Your task to perform on an android device: turn off notifications in google photos Image 0: 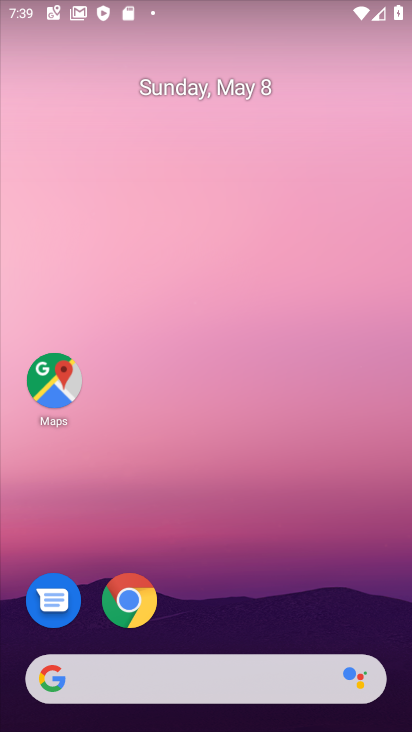
Step 0: drag from (280, 627) to (255, 283)
Your task to perform on an android device: turn off notifications in google photos Image 1: 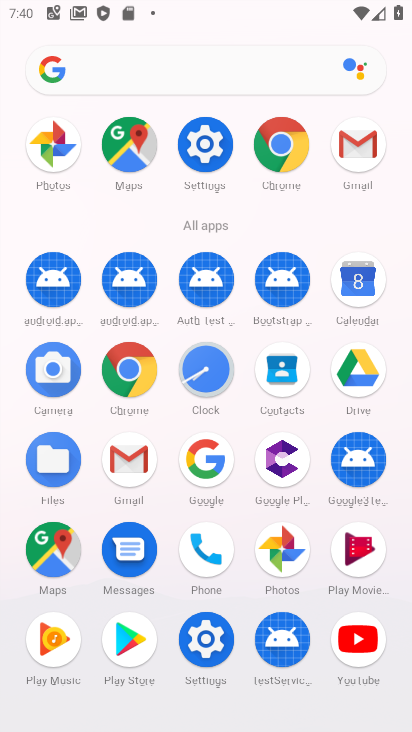
Step 1: click (264, 544)
Your task to perform on an android device: turn off notifications in google photos Image 2: 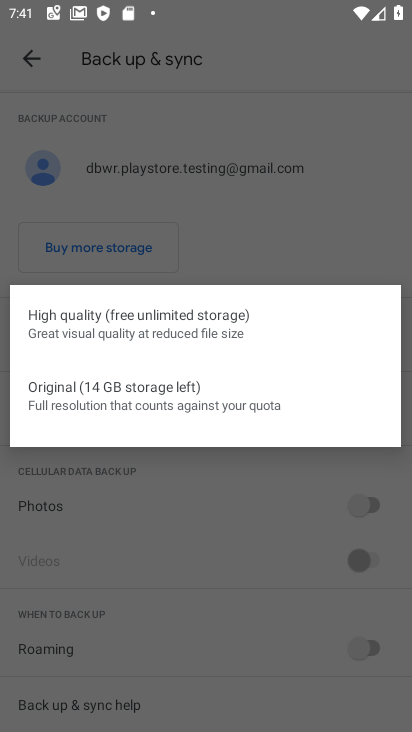
Step 2: click (83, 133)
Your task to perform on an android device: turn off notifications in google photos Image 3: 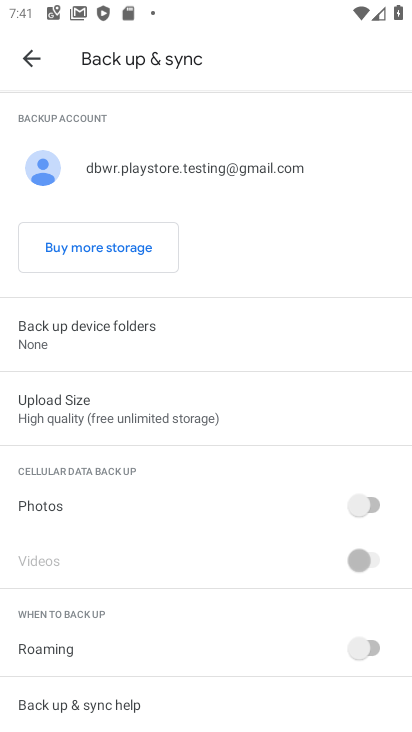
Step 3: click (36, 51)
Your task to perform on an android device: turn off notifications in google photos Image 4: 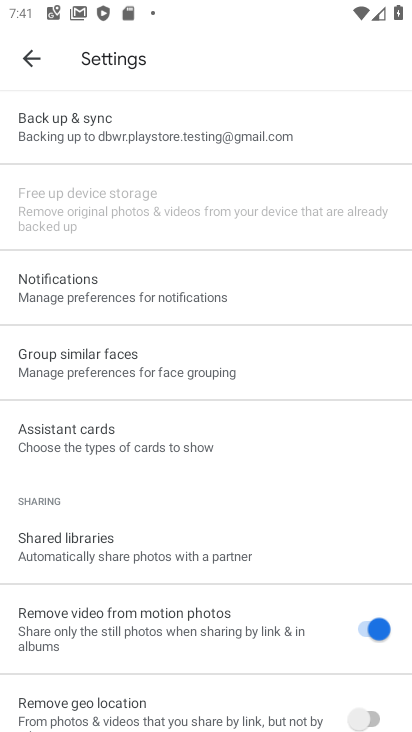
Step 4: click (164, 310)
Your task to perform on an android device: turn off notifications in google photos Image 5: 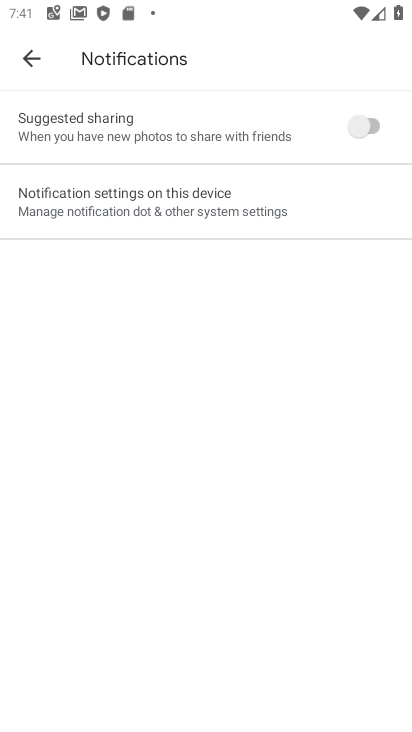
Step 5: click (243, 195)
Your task to perform on an android device: turn off notifications in google photos Image 6: 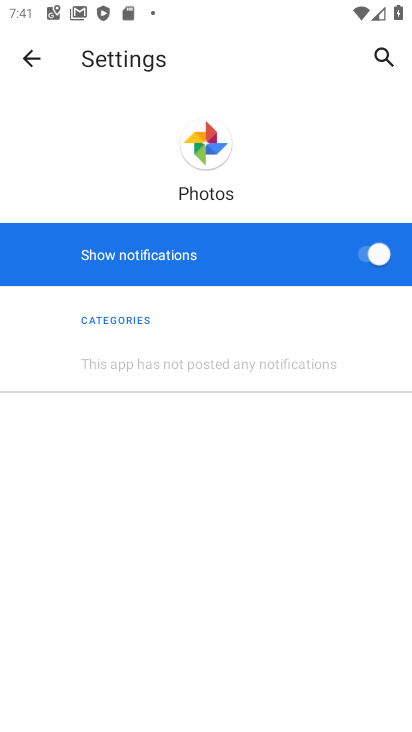
Step 6: click (354, 265)
Your task to perform on an android device: turn off notifications in google photos Image 7: 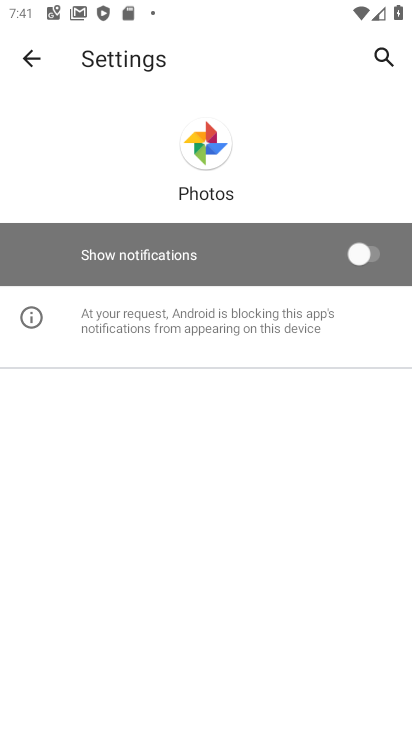
Step 7: task complete